Your task to perform on an android device: open sync settings in chrome Image 0: 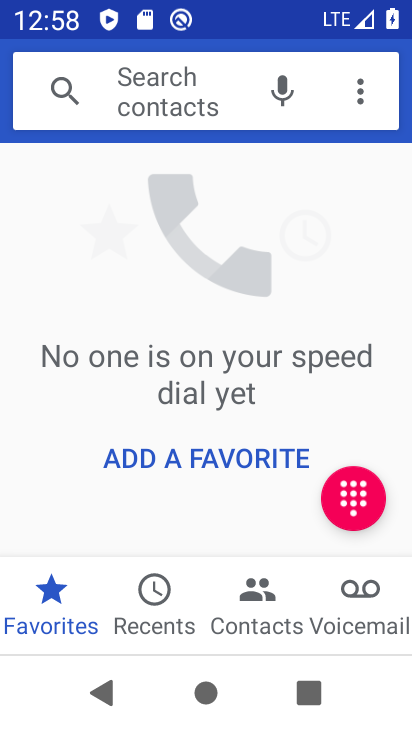
Step 0: press home button
Your task to perform on an android device: open sync settings in chrome Image 1: 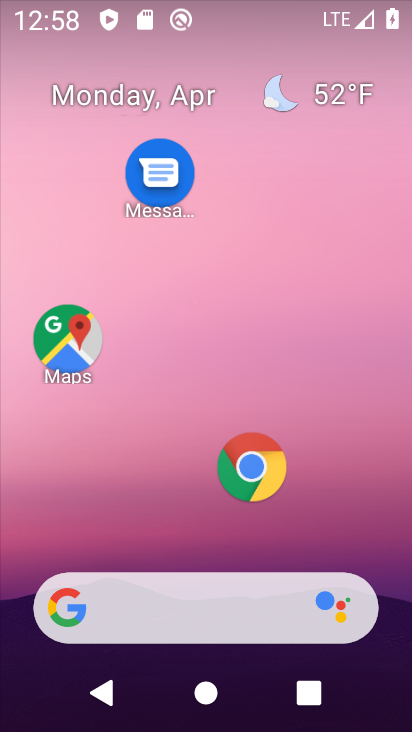
Step 1: click (240, 468)
Your task to perform on an android device: open sync settings in chrome Image 2: 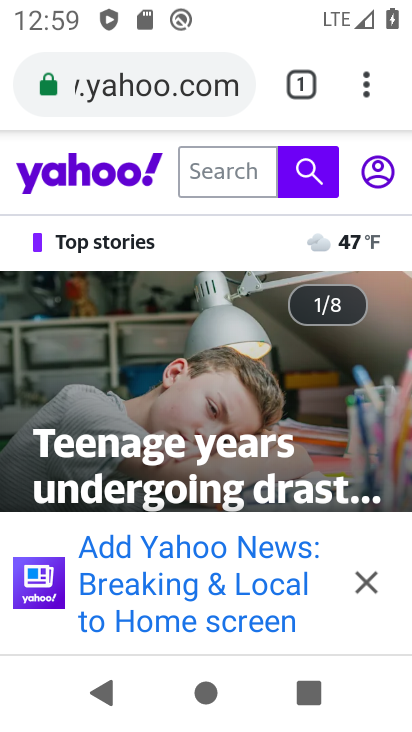
Step 2: click (365, 88)
Your task to perform on an android device: open sync settings in chrome Image 3: 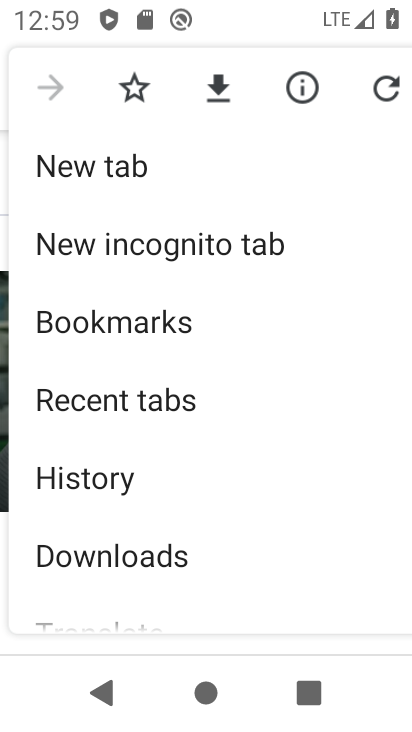
Step 3: drag from (183, 385) to (189, 310)
Your task to perform on an android device: open sync settings in chrome Image 4: 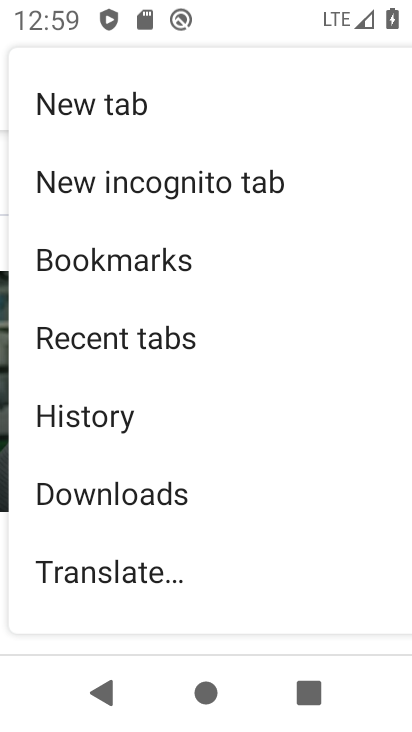
Step 4: drag from (236, 546) to (249, 281)
Your task to perform on an android device: open sync settings in chrome Image 5: 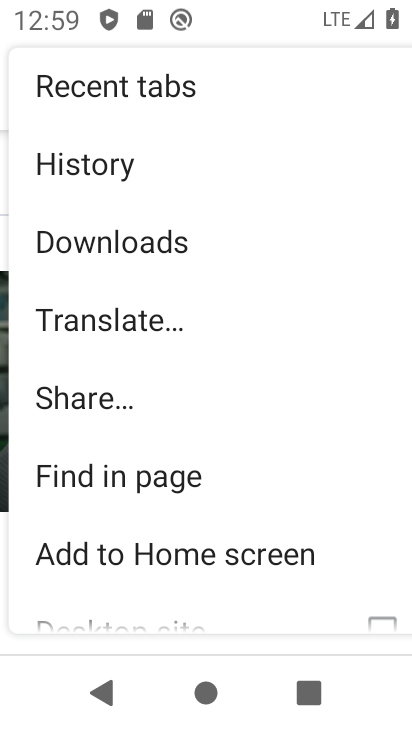
Step 5: drag from (229, 471) to (245, 266)
Your task to perform on an android device: open sync settings in chrome Image 6: 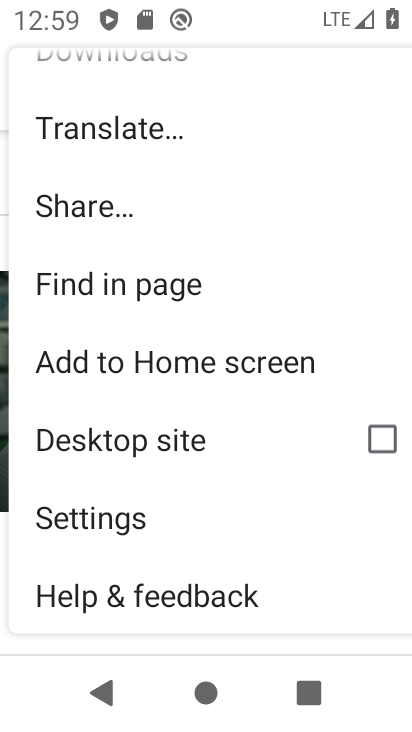
Step 6: click (120, 507)
Your task to perform on an android device: open sync settings in chrome Image 7: 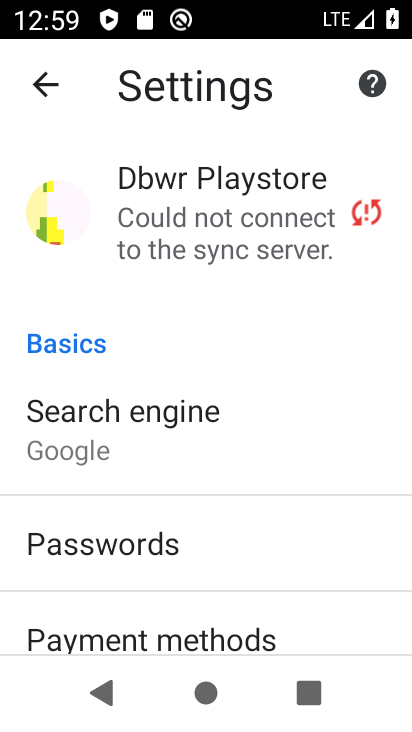
Step 7: drag from (198, 538) to (227, 292)
Your task to perform on an android device: open sync settings in chrome Image 8: 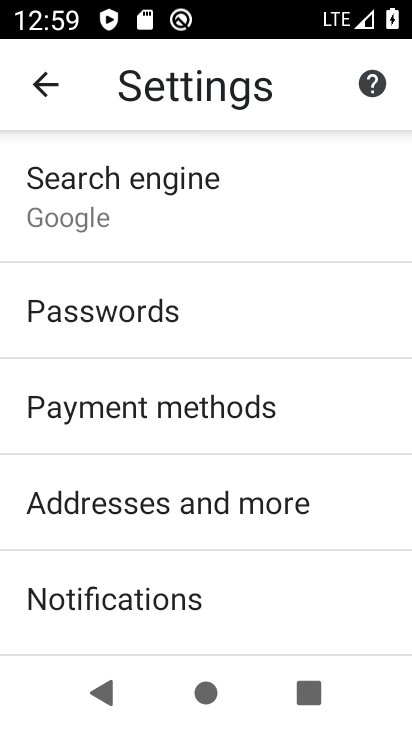
Step 8: drag from (230, 528) to (257, 343)
Your task to perform on an android device: open sync settings in chrome Image 9: 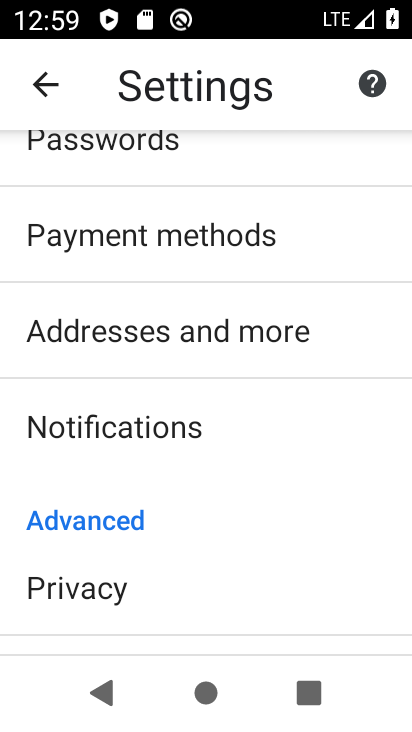
Step 9: drag from (211, 577) to (253, 202)
Your task to perform on an android device: open sync settings in chrome Image 10: 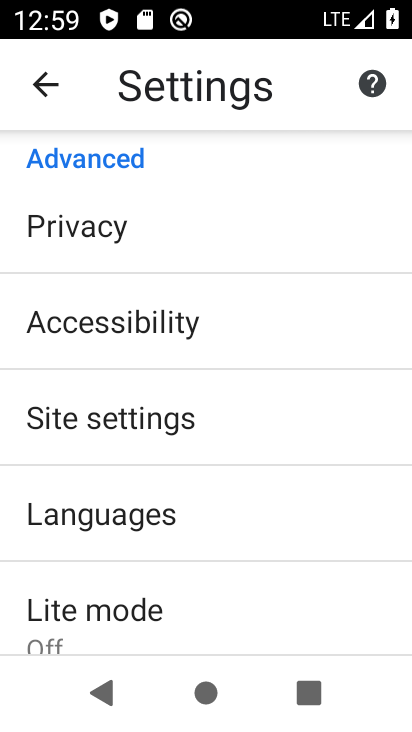
Step 10: drag from (210, 571) to (248, 292)
Your task to perform on an android device: open sync settings in chrome Image 11: 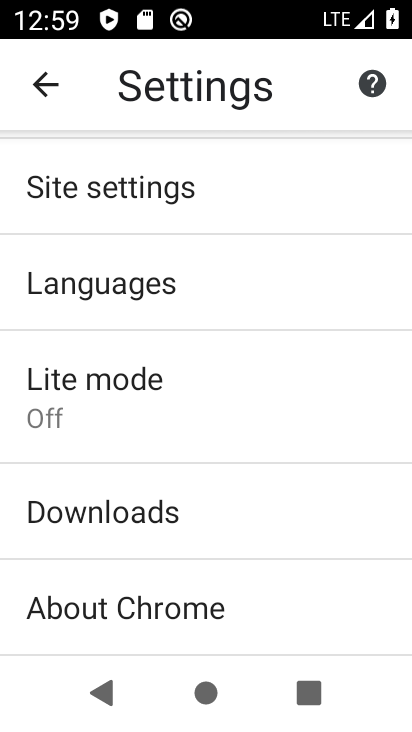
Step 11: click (258, 538)
Your task to perform on an android device: open sync settings in chrome Image 12: 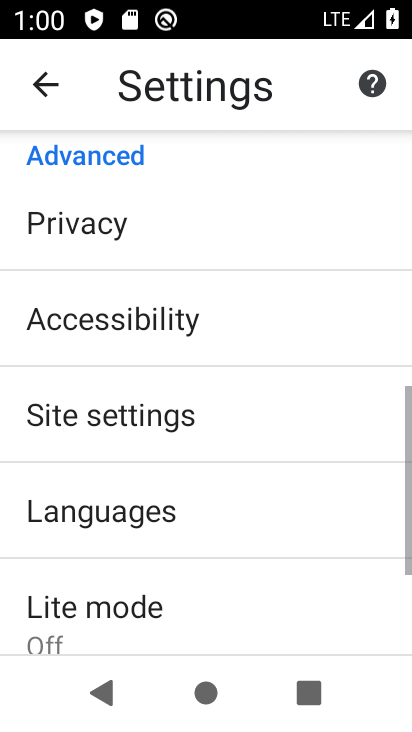
Step 12: drag from (258, 244) to (257, 614)
Your task to perform on an android device: open sync settings in chrome Image 13: 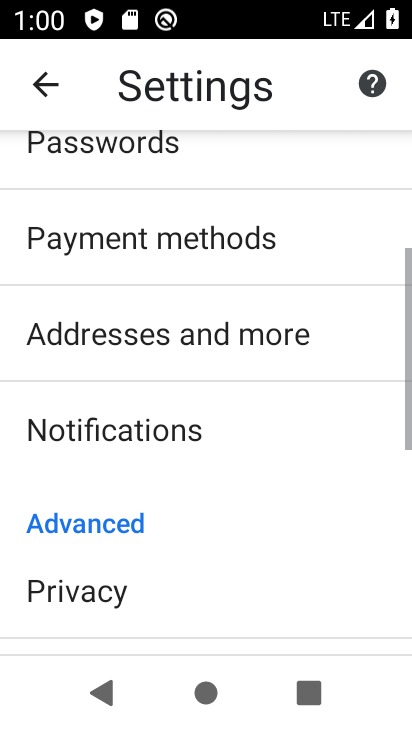
Step 13: drag from (237, 292) to (237, 596)
Your task to perform on an android device: open sync settings in chrome Image 14: 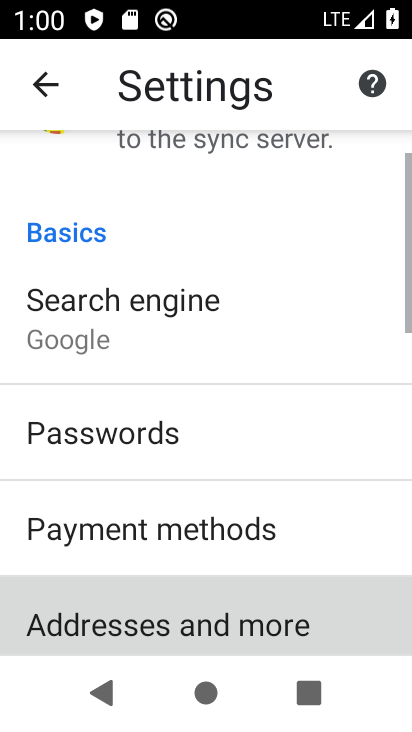
Step 14: drag from (214, 309) to (214, 530)
Your task to perform on an android device: open sync settings in chrome Image 15: 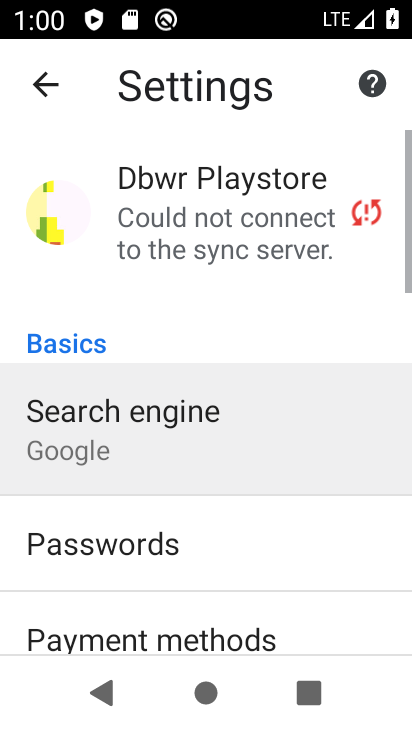
Step 15: drag from (214, 254) to (214, 540)
Your task to perform on an android device: open sync settings in chrome Image 16: 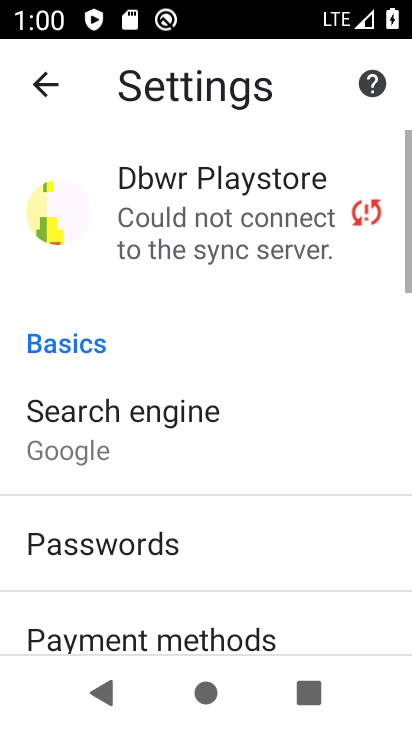
Step 16: click (217, 244)
Your task to perform on an android device: open sync settings in chrome Image 17: 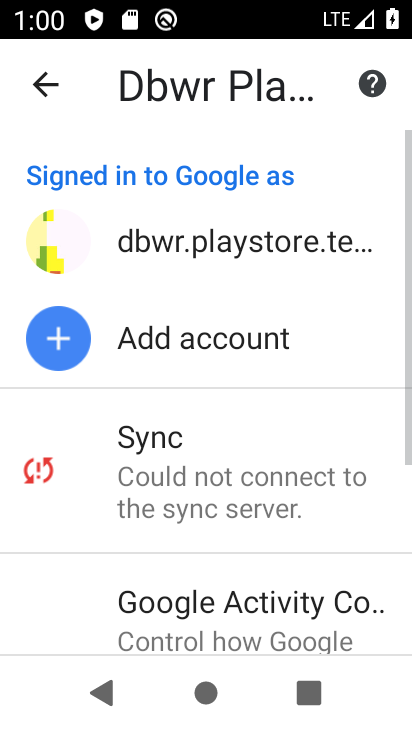
Step 17: click (186, 453)
Your task to perform on an android device: open sync settings in chrome Image 18: 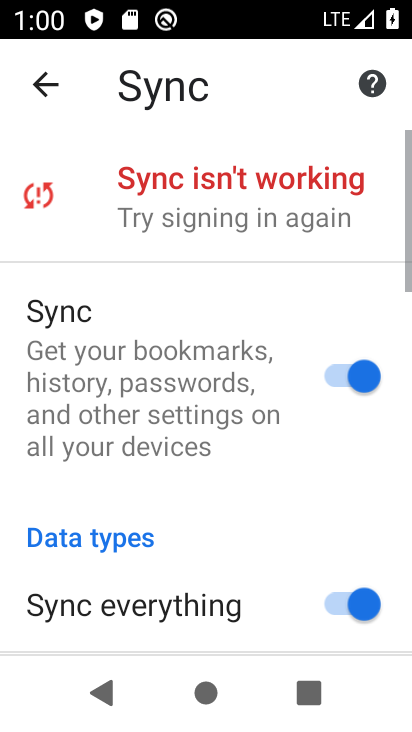
Step 18: task complete